Your task to perform on an android device: Go to Google maps Image 0: 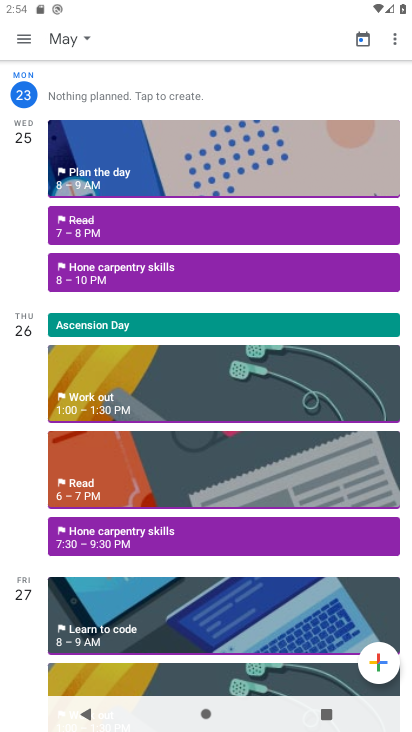
Step 0: press home button
Your task to perform on an android device: Go to Google maps Image 1: 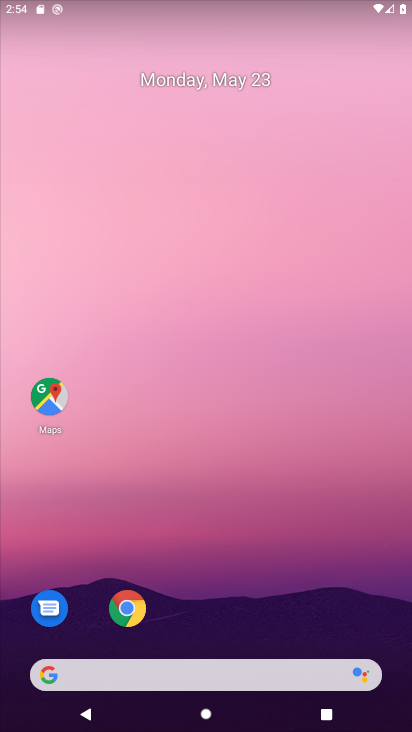
Step 1: click (42, 405)
Your task to perform on an android device: Go to Google maps Image 2: 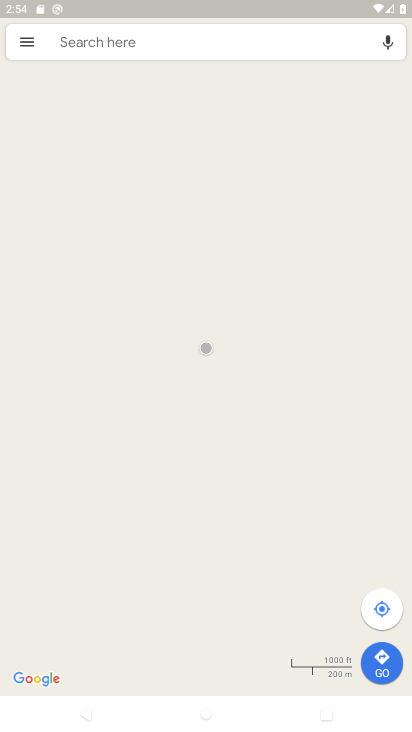
Step 2: click (144, 44)
Your task to perform on an android device: Go to Google maps Image 3: 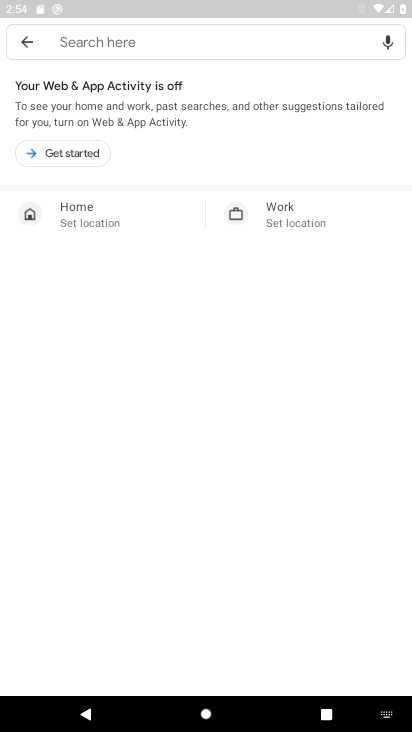
Step 3: task complete